Your task to perform on an android device: Open settings Image 0: 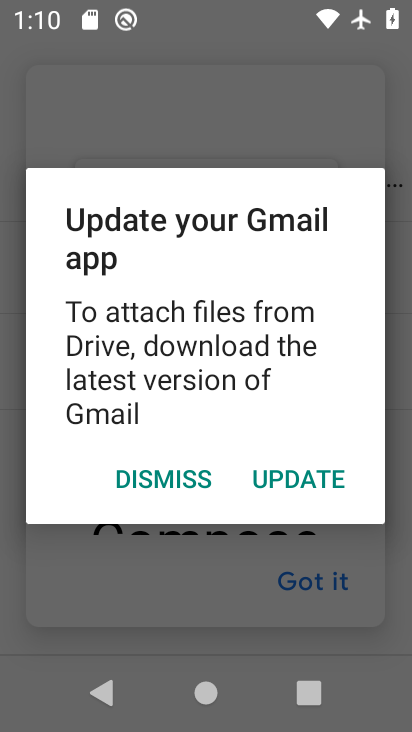
Step 0: press home button
Your task to perform on an android device: Open settings Image 1: 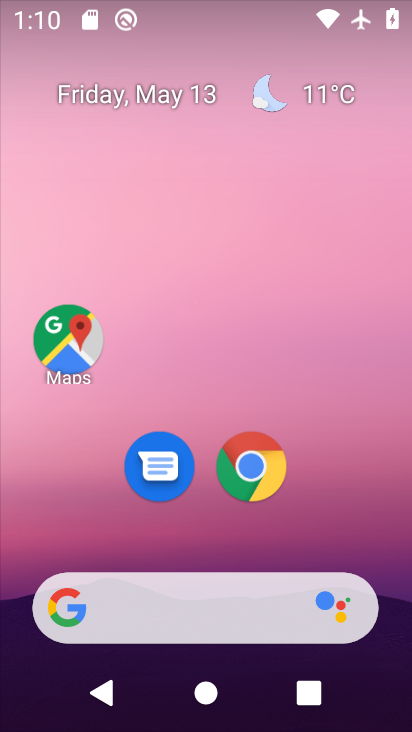
Step 1: drag from (215, 533) to (273, 55)
Your task to perform on an android device: Open settings Image 2: 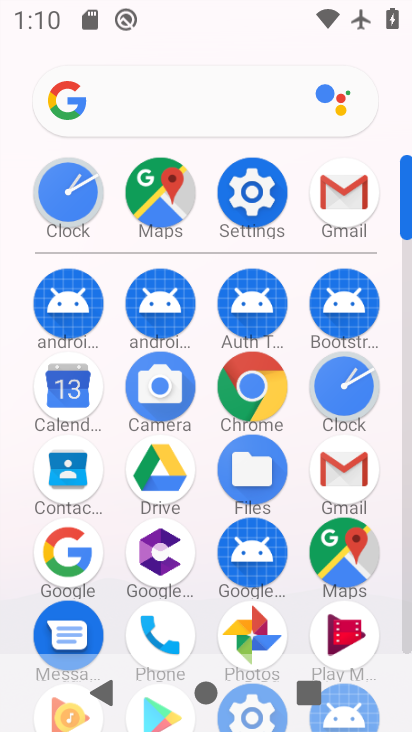
Step 2: click (263, 180)
Your task to perform on an android device: Open settings Image 3: 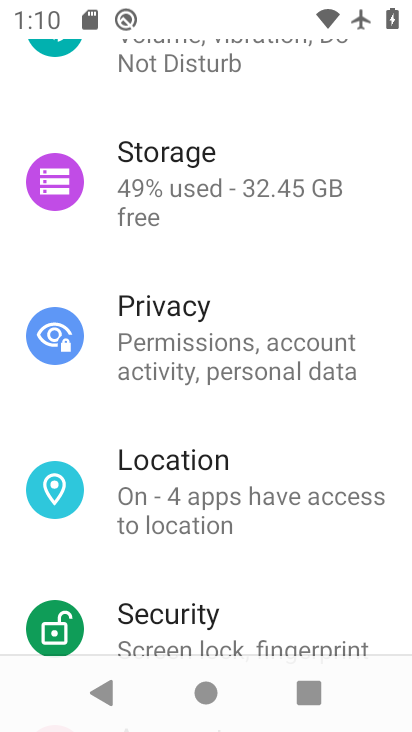
Step 3: task complete